Your task to perform on an android device: star an email in the gmail app Image 0: 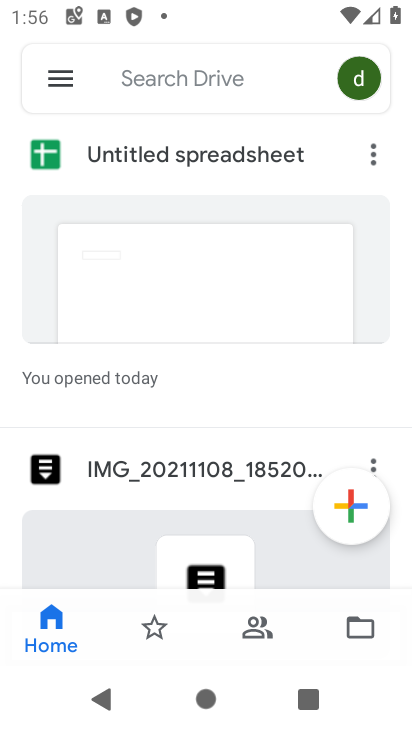
Step 0: press home button
Your task to perform on an android device: star an email in the gmail app Image 1: 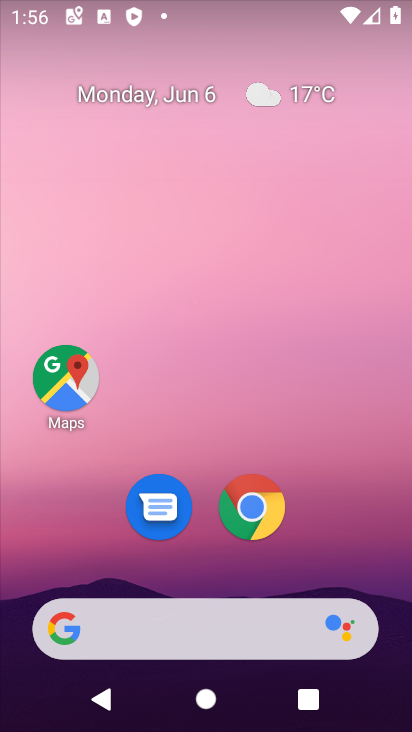
Step 1: drag from (333, 530) to (327, 0)
Your task to perform on an android device: star an email in the gmail app Image 2: 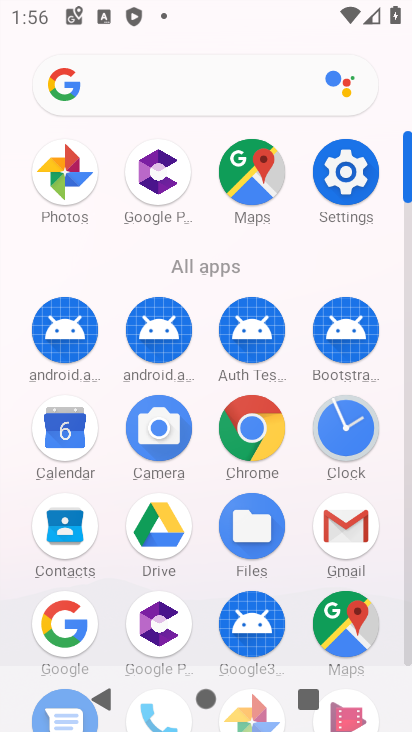
Step 2: click (339, 520)
Your task to perform on an android device: star an email in the gmail app Image 3: 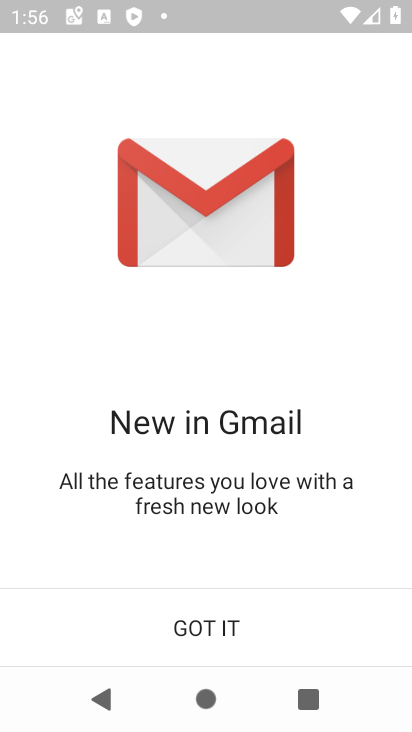
Step 3: click (250, 621)
Your task to perform on an android device: star an email in the gmail app Image 4: 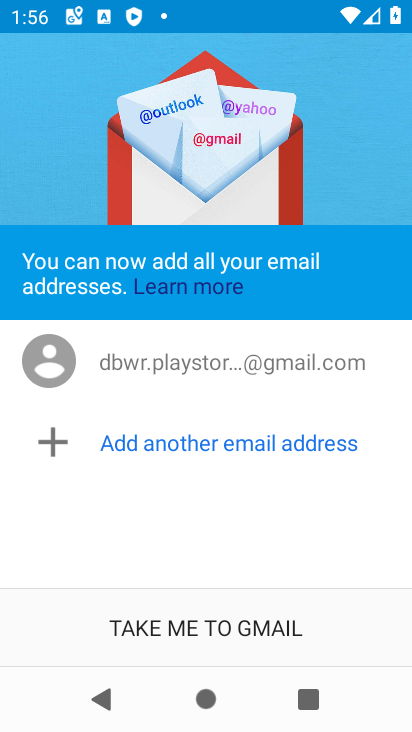
Step 4: click (250, 619)
Your task to perform on an android device: star an email in the gmail app Image 5: 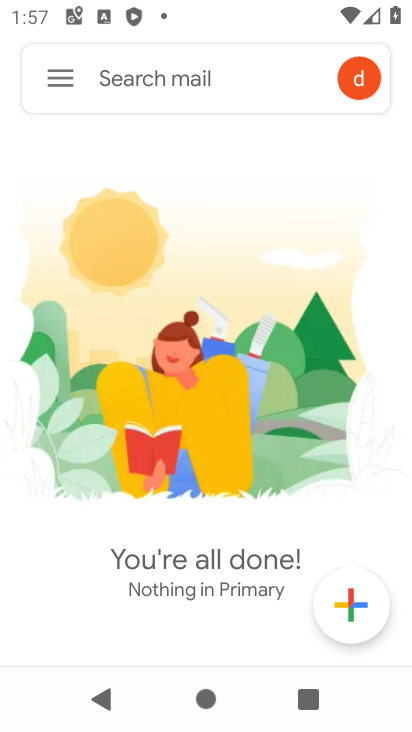
Step 5: click (64, 77)
Your task to perform on an android device: star an email in the gmail app Image 6: 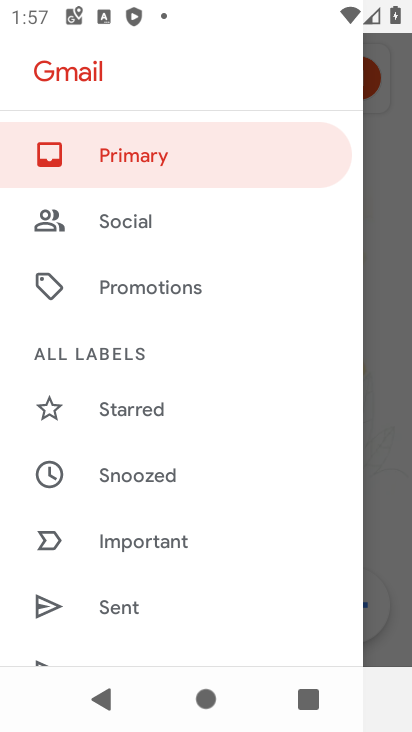
Step 6: drag from (196, 522) to (193, 122)
Your task to perform on an android device: star an email in the gmail app Image 7: 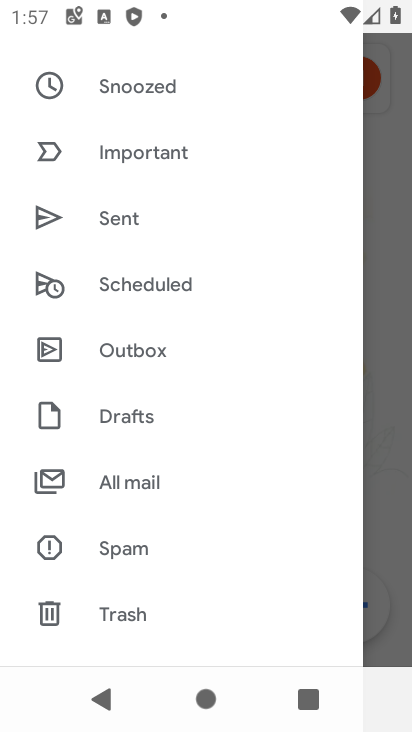
Step 7: click (155, 475)
Your task to perform on an android device: star an email in the gmail app Image 8: 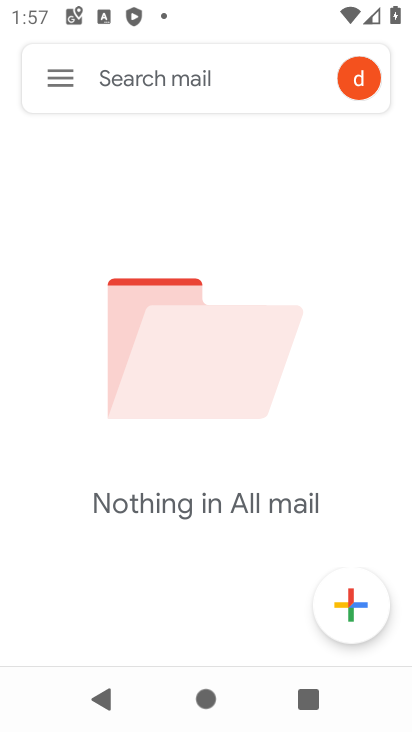
Step 8: task complete